Your task to perform on an android device: change text size in settings app Image 0: 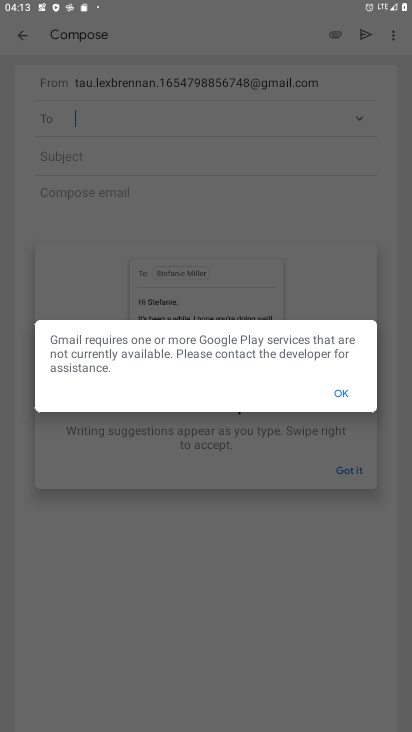
Step 0: press home button
Your task to perform on an android device: change text size in settings app Image 1: 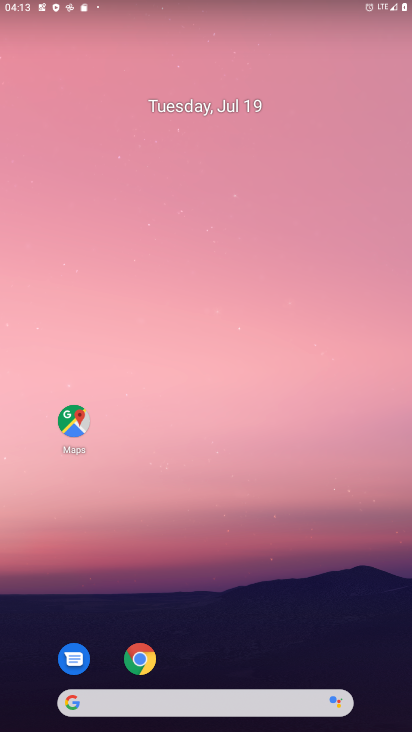
Step 1: drag from (256, 642) to (275, 170)
Your task to perform on an android device: change text size in settings app Image 2: 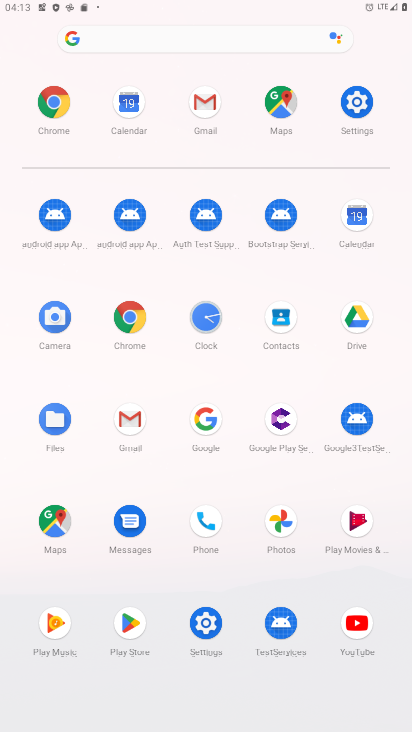
Step 2: click (203, 631)
Your task to perform on an android device: change text size in settings app Image 3: 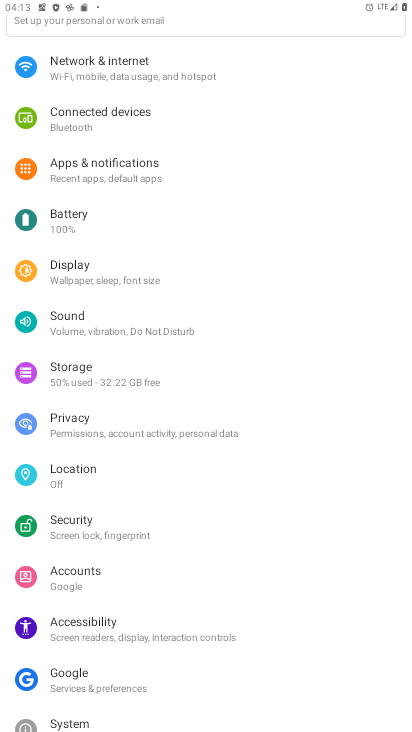
Step 3: click (104, 286)
Your task to perform on an android device: change text size in settings app Image 4: 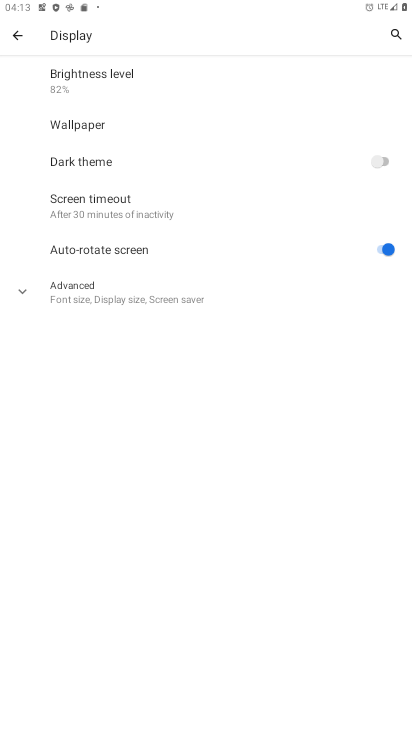
Step 4: click (104, 286)
Your task to perform on an android device: change text size in settings app Image 5: 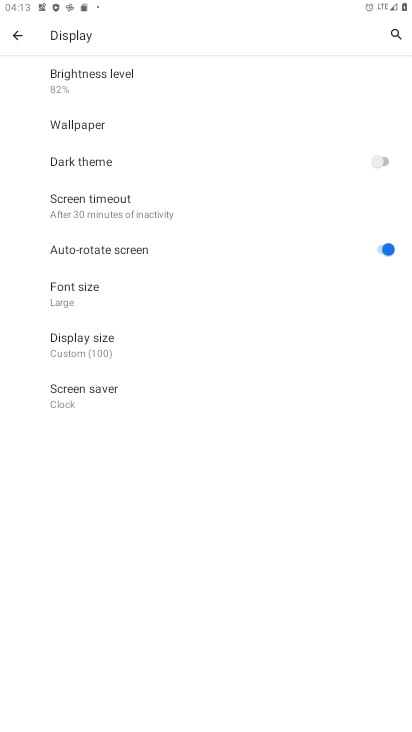
Step 5: click (104, 286)
Your task to perform on an android device: change text size in settings app Image 6: 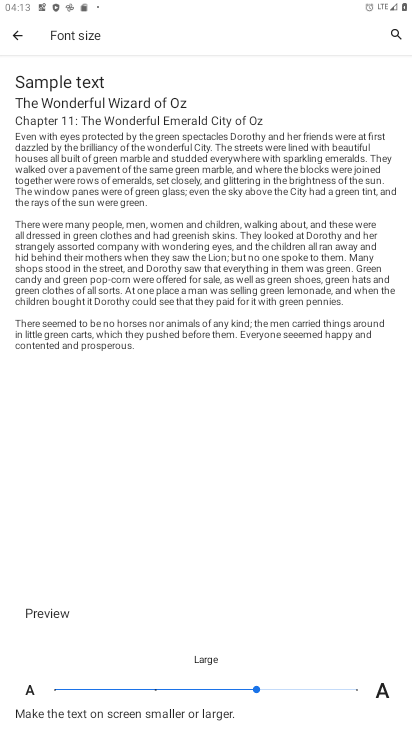
Step 6: click (385, 693)
Your task to perform on an android device: change text size in settings app Image 7: 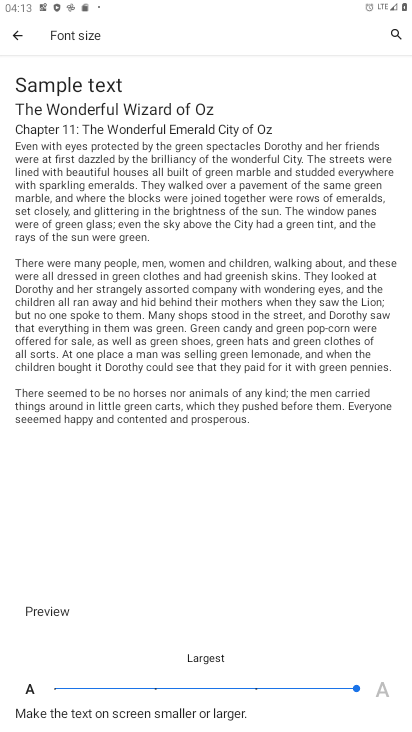
Step 7: task complete